Your task to perform on an android device: turn off airplane mode Image 0: 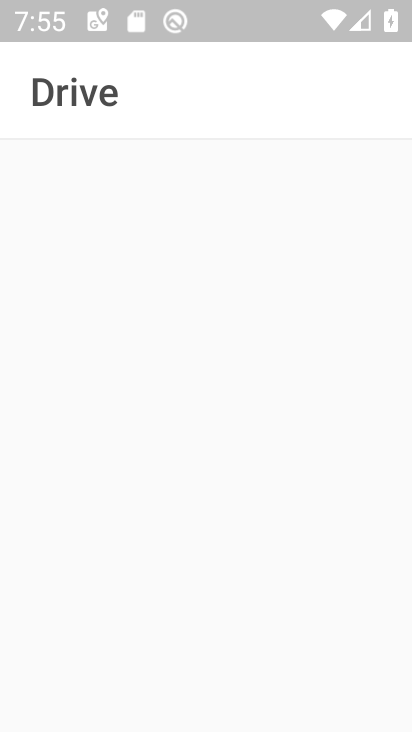
Step 0: press back button
Your task to perform on an android device: turn off airplane mode Image 1: 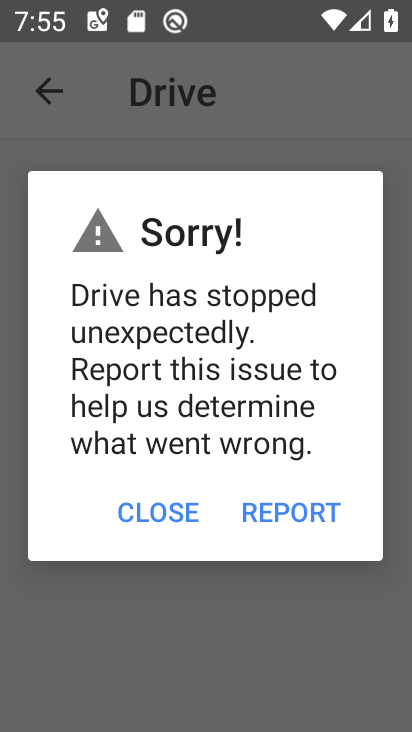
Step 1: task complete